Your task to perform on an android device: open app "Google Sheets" Image 0: 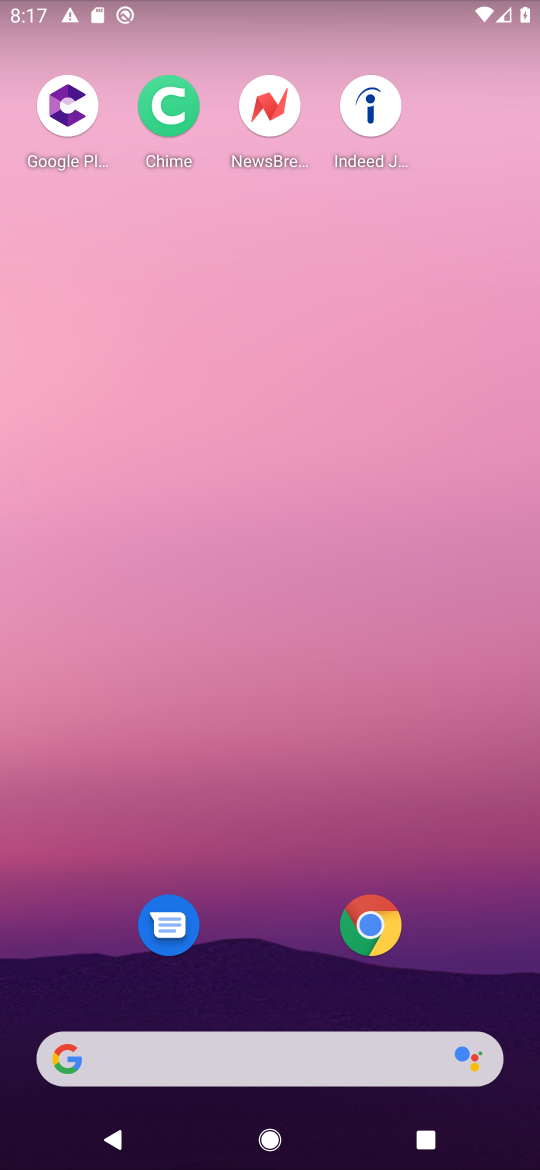
Step 0: drag from (249, 970) to (336, 8)
Your task to perform on an android device: open app "Google Sheets" Image 1: 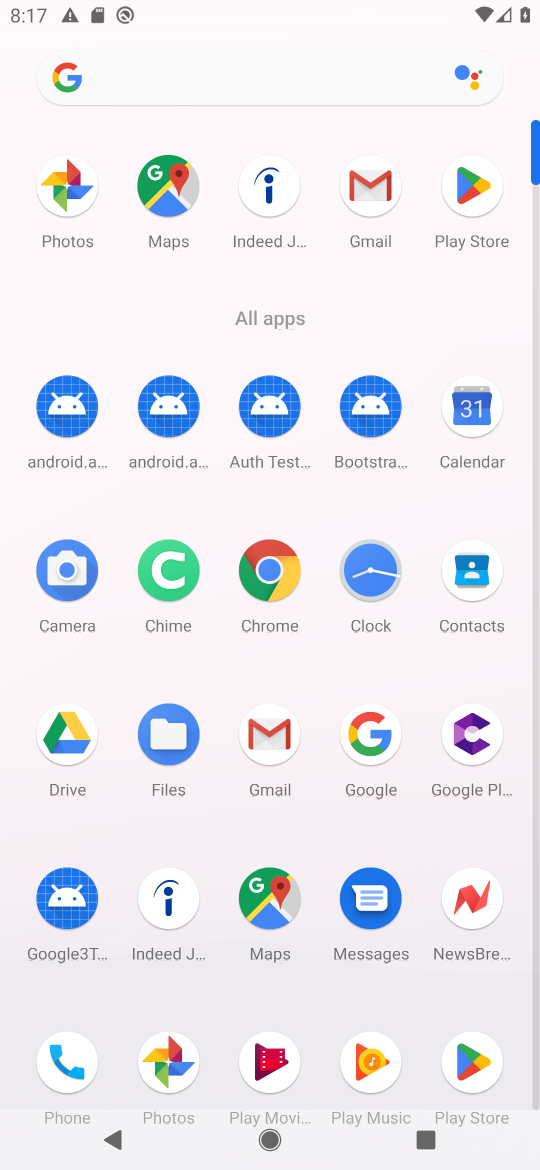
Step 1: click (472, 192)
Your task to perform on an android device: open app "Google Sheets" Image 2: 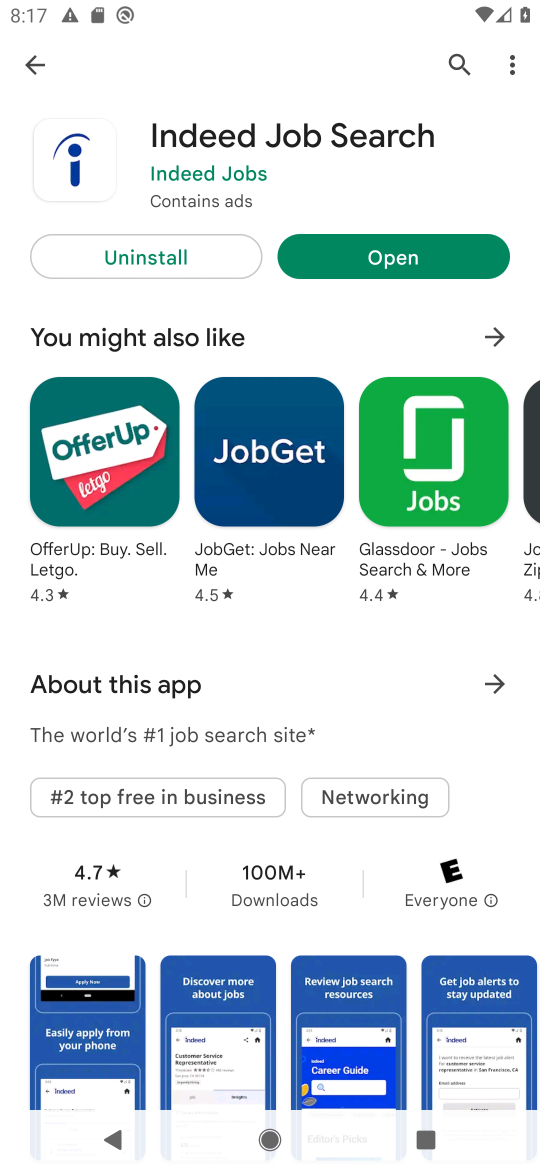
Step 2: click (466, 75)
Your task to perform on an android device: open app "Google Sheets" Image 3: 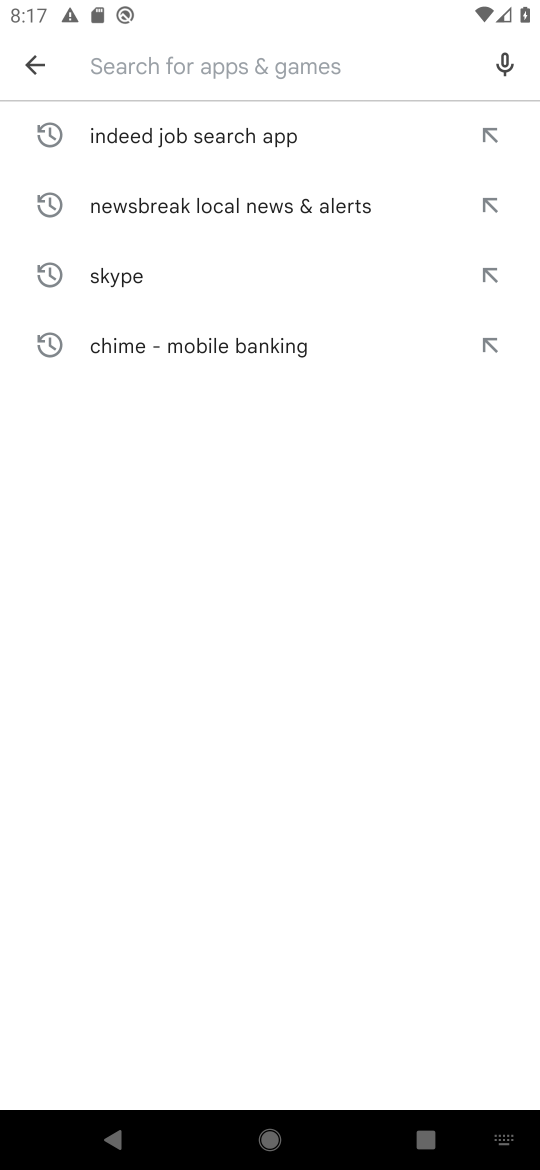
Step 3: press home button
Your task to perform on an android device: open app "Google Sheets" Image 4: 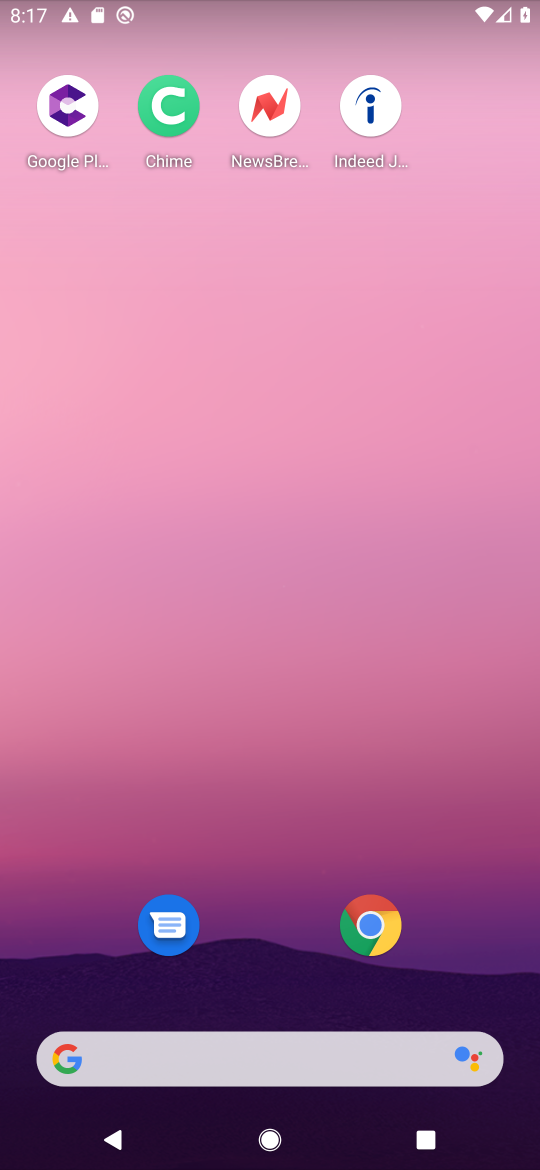
Step 4: drag from (260, 307) to (390, 28)
Your task to perform on an android device: open app "Google Sheets" Image 5: 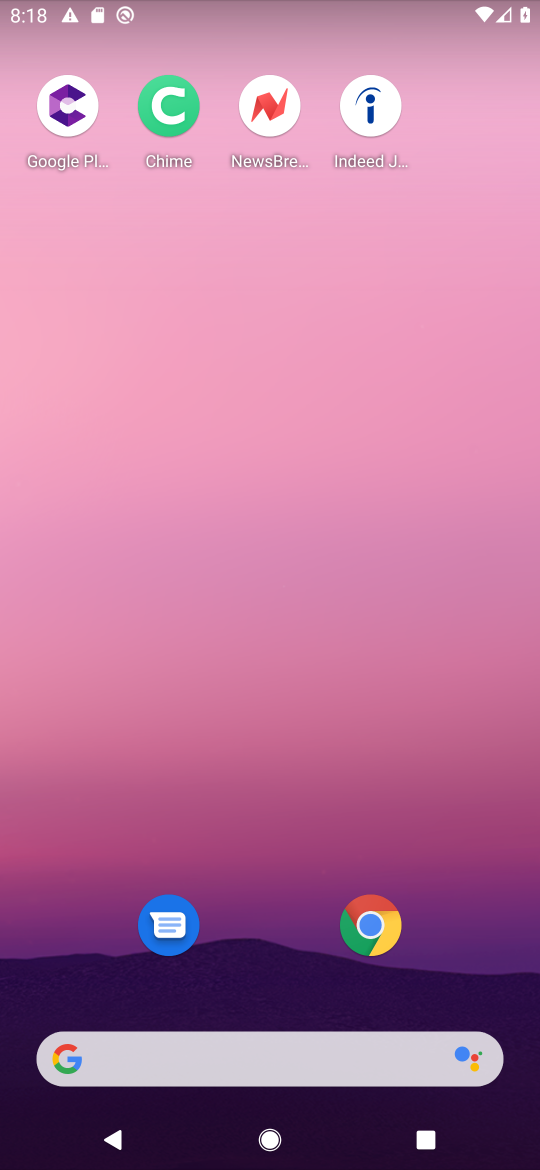
Step 5: drag from (274, 836) to (274, 98)
Your task to perform on an android device: open app "Google Sheets" Image 6: 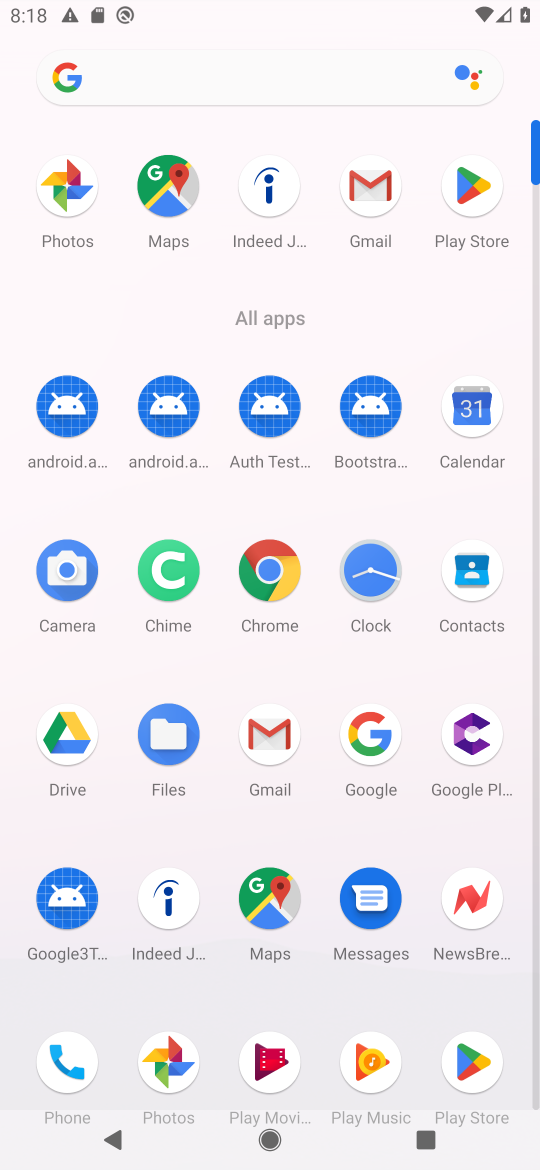
Step 6: click (470, 190)
Your task to perform on an android device: open app "Google Sheets" Image 7: 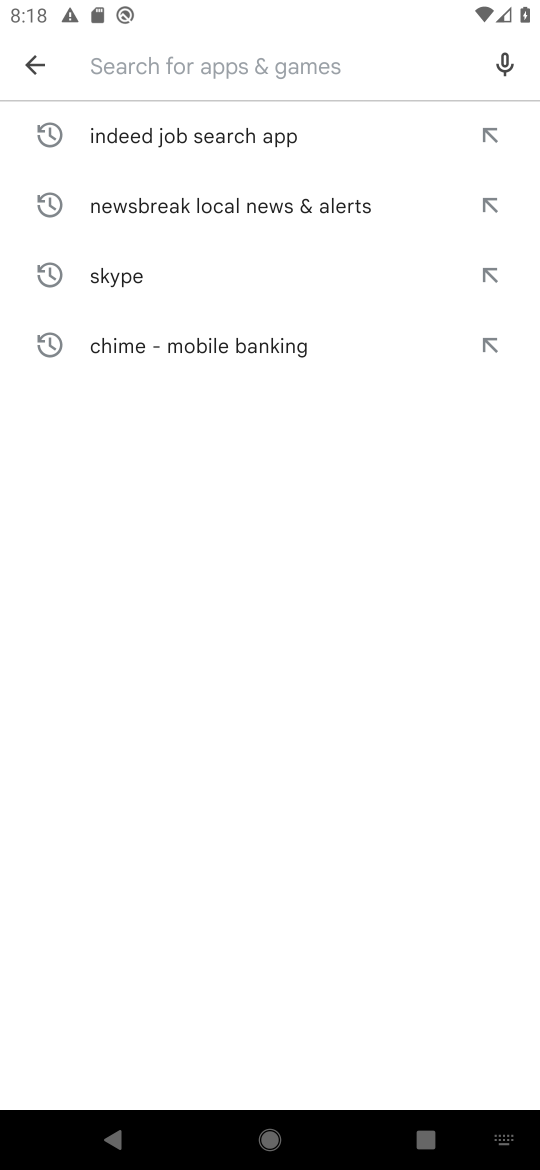
Step 7: type "google sheets"
Your task to perform on an android device: open app "Google Sheets" Image 8: 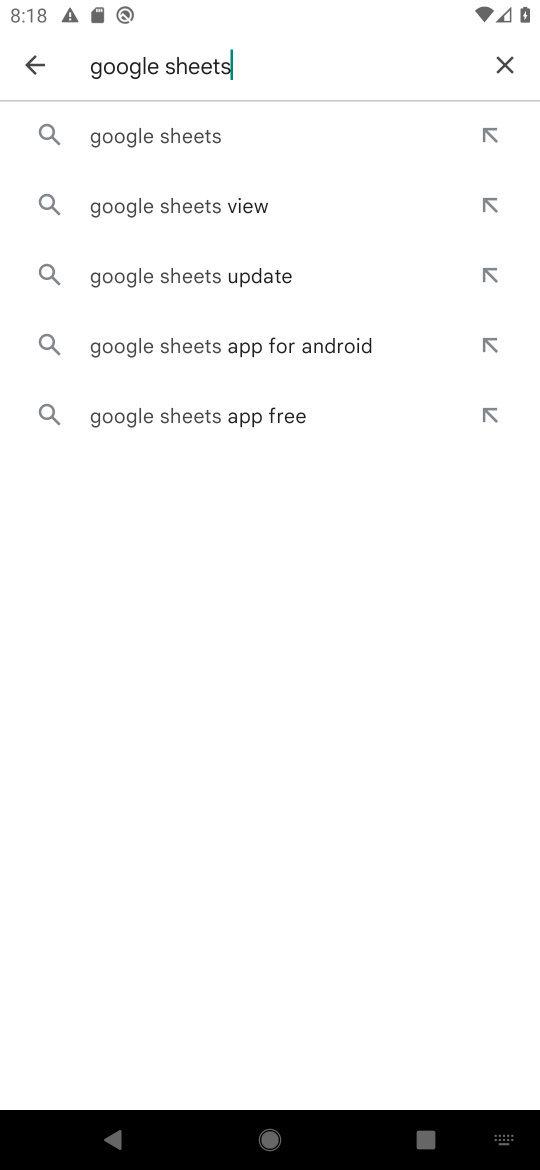
Step 8: click (155, 144)
Your task to perform on an android device: open app "Google Sheets" Image 9: 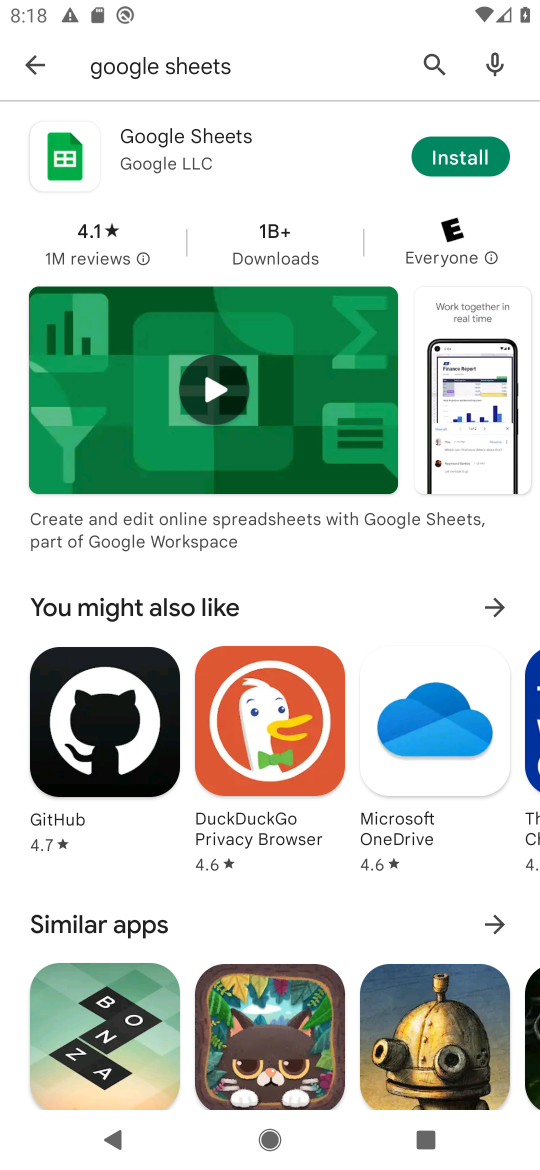
Step 9: click (233, 133)
Your task to perform on an android device: open app "Google Sheets" Image 10: 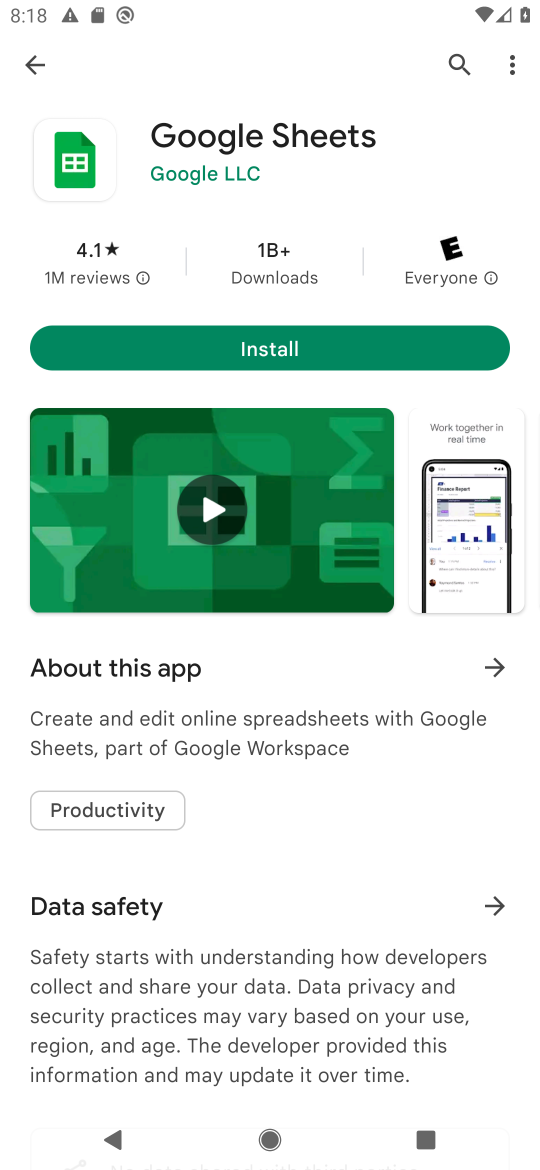
Step 10: task complete